Your task to perform on an android device: View the shopping cart on amazon.com. Add "razer blackwidow" to the cart on amazon.com Image 0: 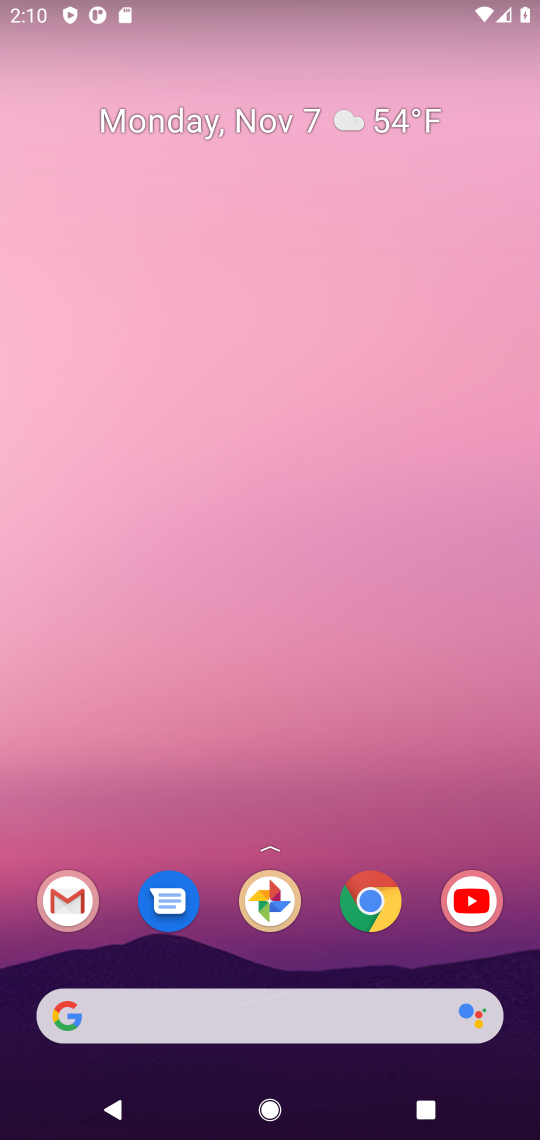
Step 0: click (374, 902)
Your task to perform on an android device: View the shopping cart on amazon.com. Add "razer blackwidow" to the cart on amazon.com Image 1: 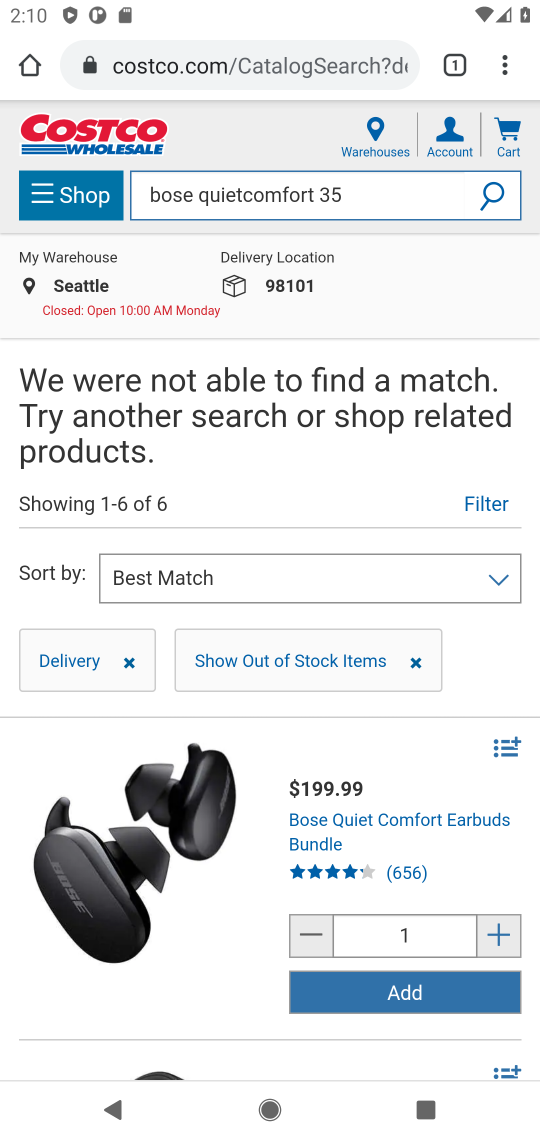
Step 1: click (184, 67)
Your task to perform on an android device: View the shopping cart on amazon.com. Add "razer blackwidow" to the cart on amazon.com Image 2: 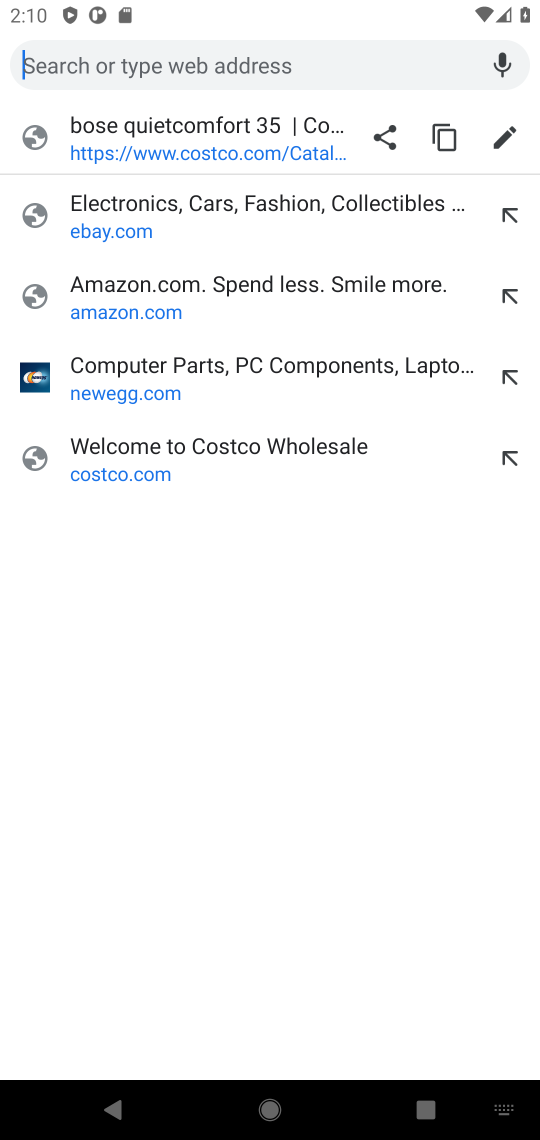
Step 2: click (145, 312)
Your task to perform on an android device: View the shopping cart on amazon.com. Add "razer blackwidow" to the cart on amazon.com Image 3: 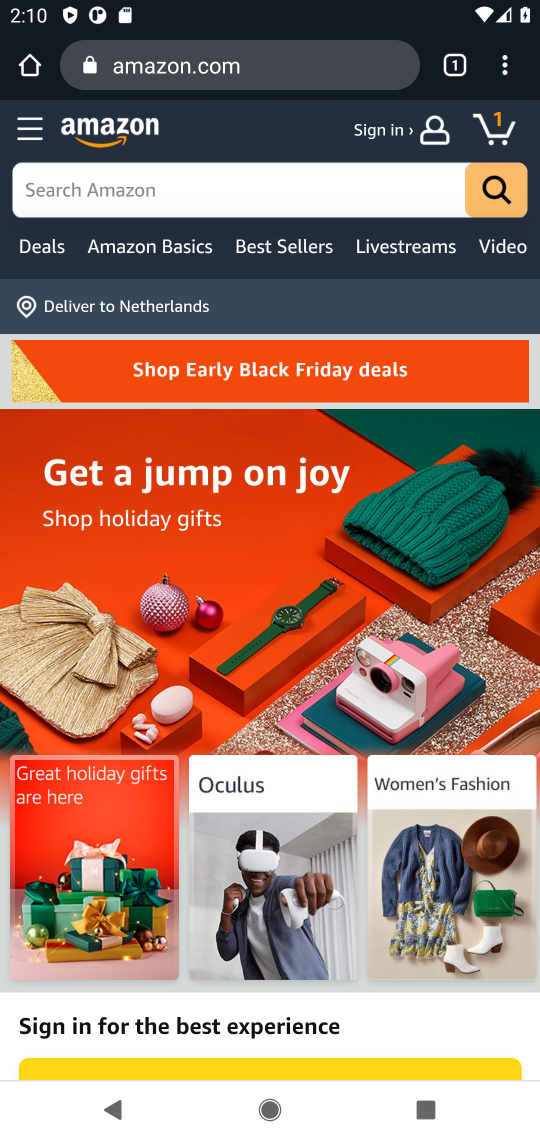
Step 3: click (491, 128)
Your task to perform on an android device: View the shopping cart on amazon.com. Add "razer blackwidow" to the cart on amazon.com Image 4: 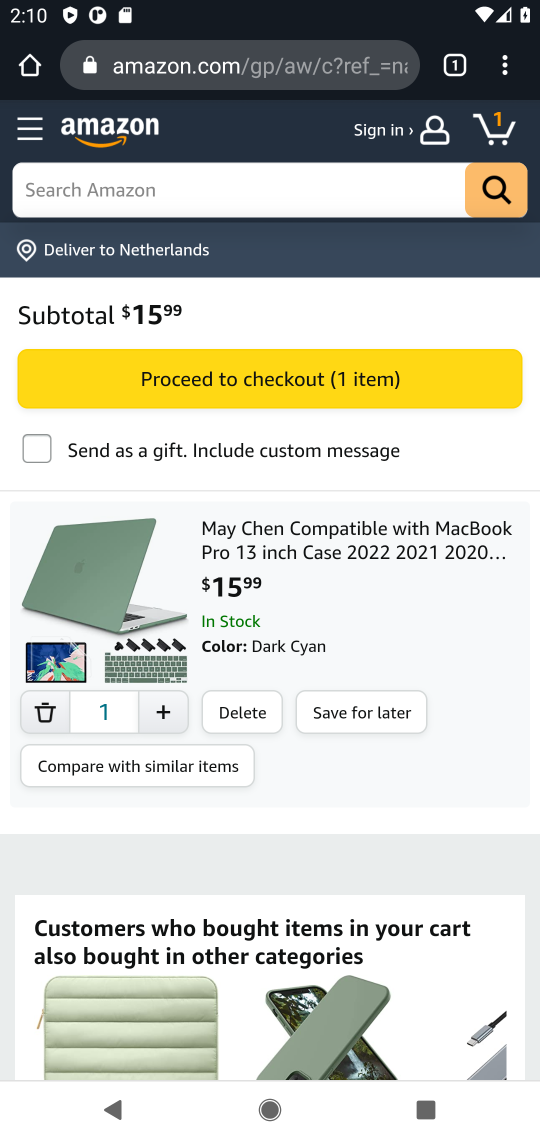
Step 4: click (257, 186)
Your task to perform on an android device: View the shopping cart on amazon.com. Add "razer blackwidow" to the cart on amazon.com Image 5: 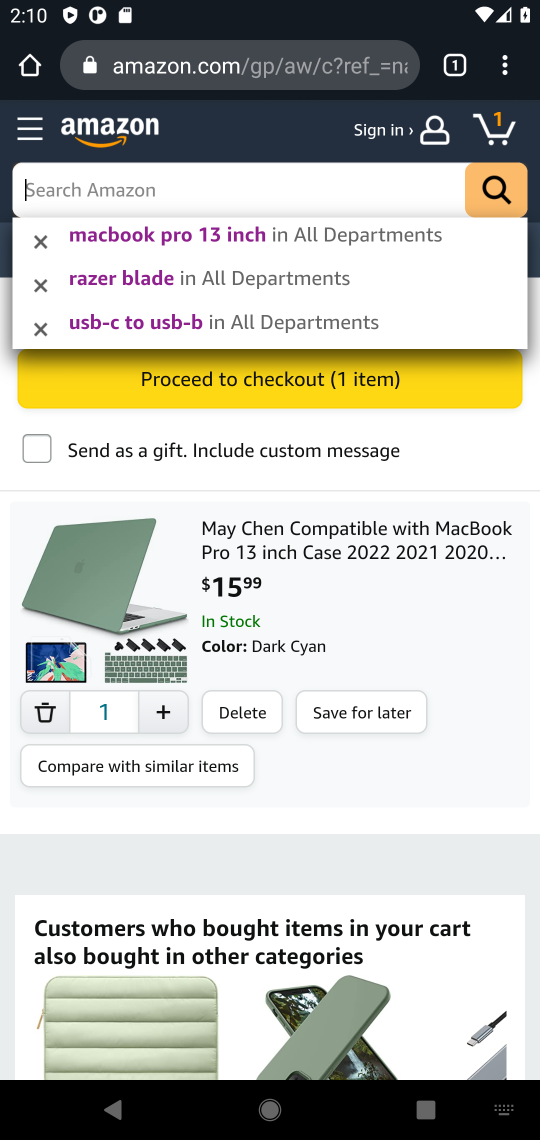
Step 5: type "razer blackwidow"
Your task to perform on an android device: View the shopping cart on amazon.com. Add "razer blackwidow" to the cart on amazon.com Image 6: 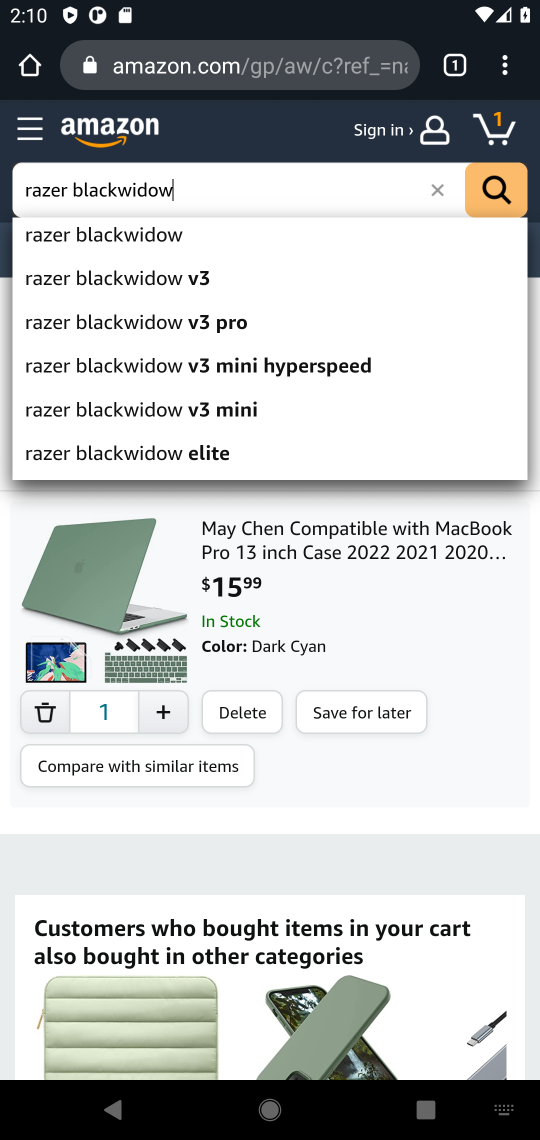
Step 6: click (94, 239)
Your task to perform on an android device: View the shopping cart on amazon.com. Add "razer blackwidow" to the cart on amazon.com Image 7: 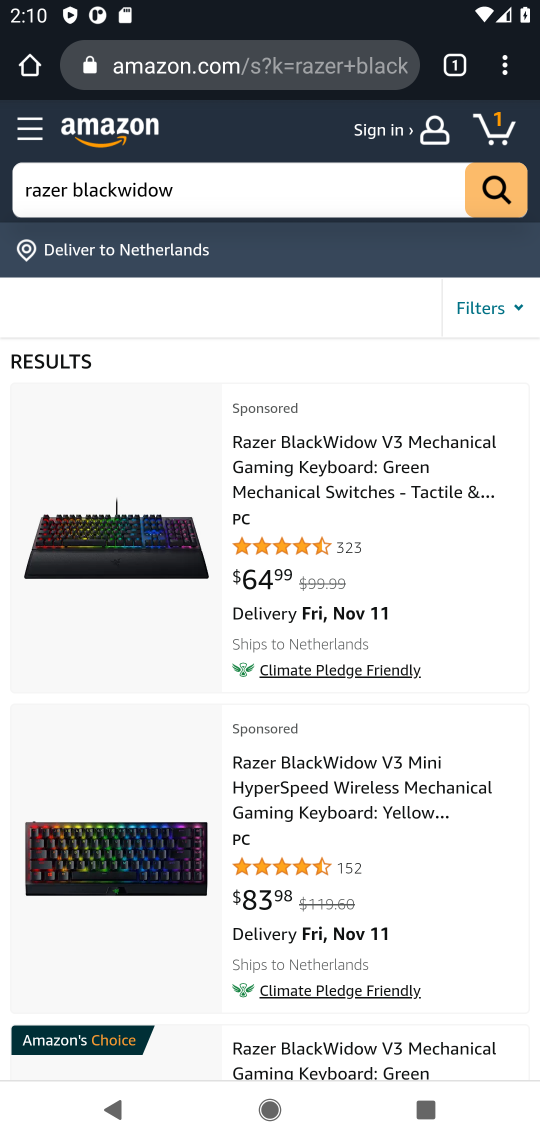
Step 7: click (146, 544)
Your task to perform on an android device: View the shopping cart on amazon.com. Add "razer blackwidow" to the cart on amazon.com Image 8: 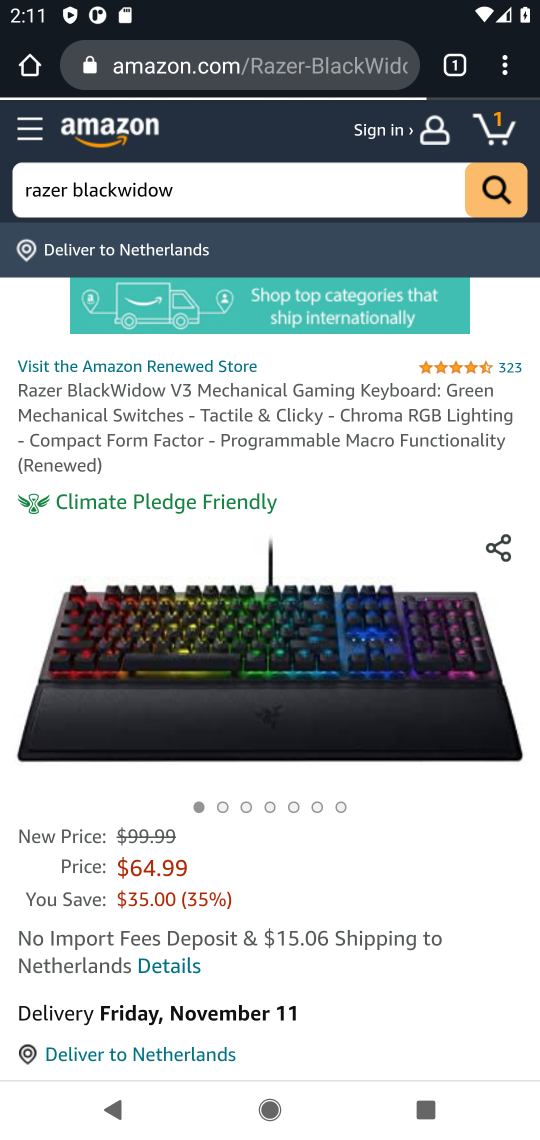
Step 8: drag from (214, 849) to (217, 506)
Your task to perform on an android device: View the shopping cart on amazon.com. Add "razer blackwidow" to the cart on amazon.com Image 9: 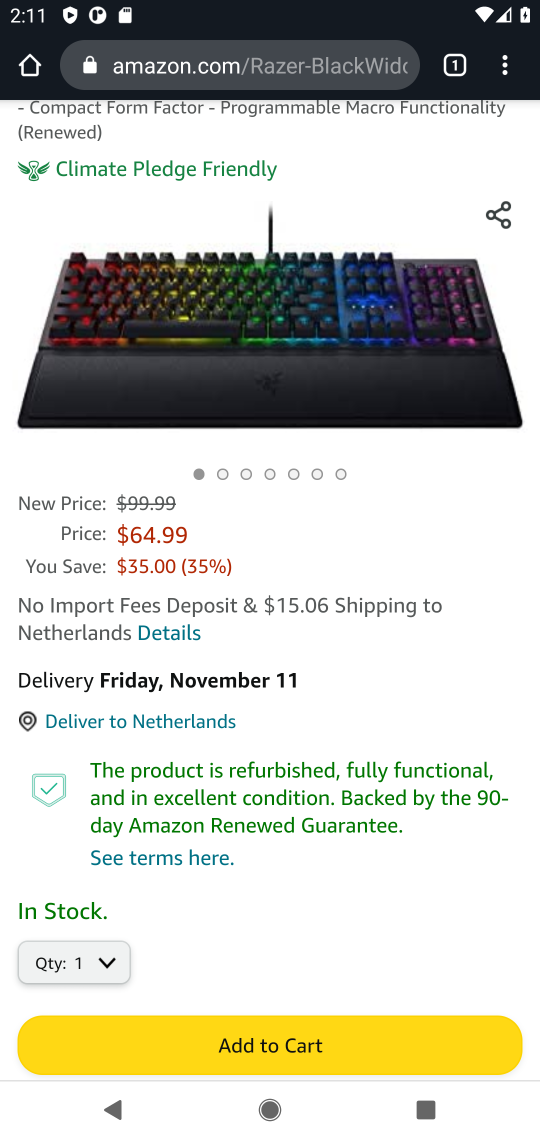
Step 9: drag from (262, 854) to (283, 482)
Your task to perform on an android device: View the shopping cart on amazon.com. Add "razer blackwidow" to the cart on amazon.com Image 10: 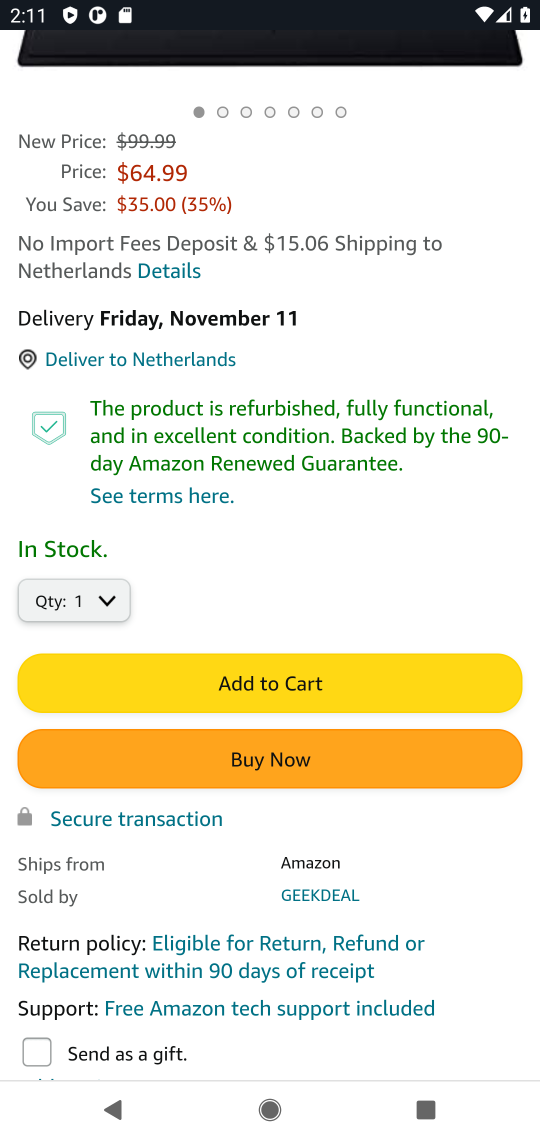
Step 10: click (264, 685)
Your task to perform on an android device: View the shopping cart on amazon.com. Add "razer blackwidow" to the cart on amazon.com Image 11: 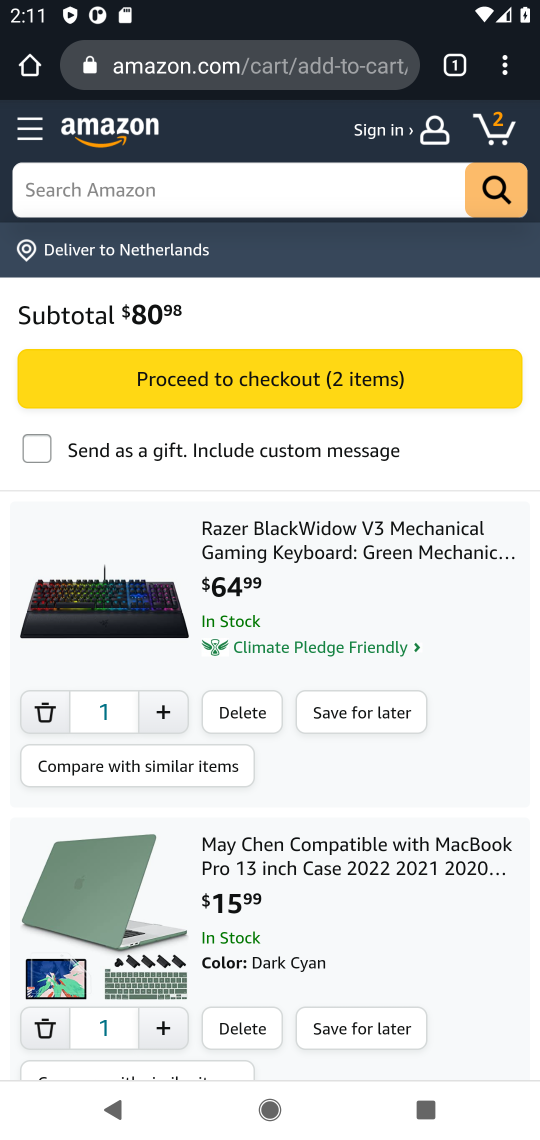
Step 11: task complete